Your task to perform on an android device: Open eBay Image 0: 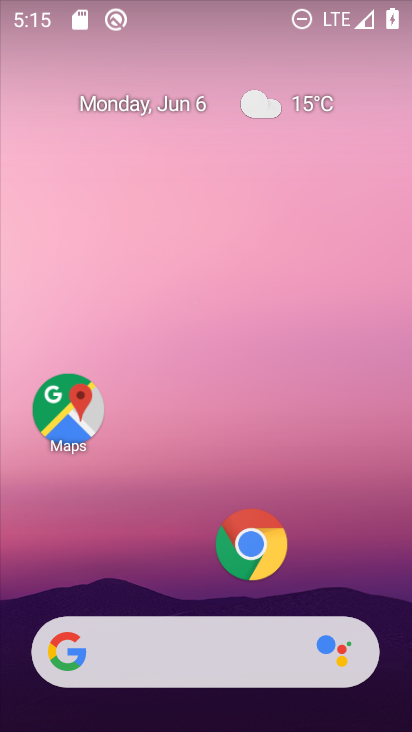
Step 0: click (245, 533)
Your task to perform on an android device: Open eBay Image 1: 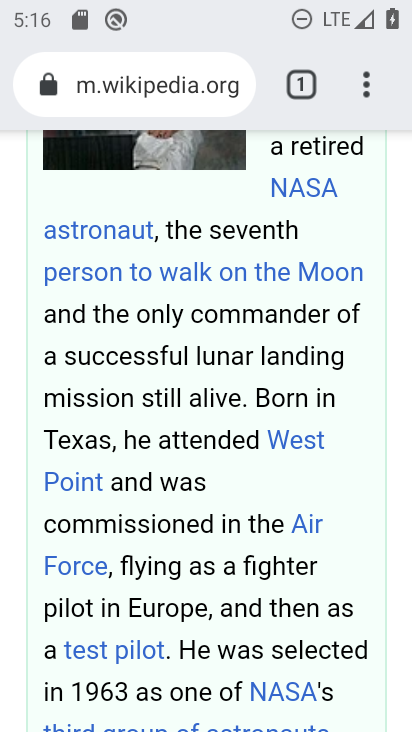
Step 1: click (302, 83)
Your task to perform on an android device: Open eBay Image 2: 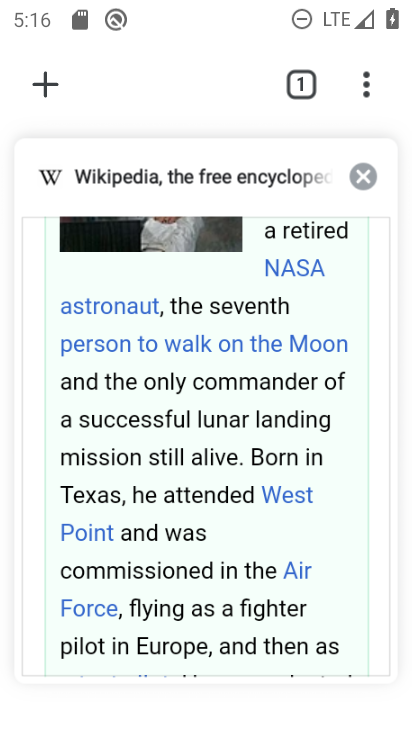
Step 2: click (45, 79)
Your task to perform on an android device: Open eBay Image 3: 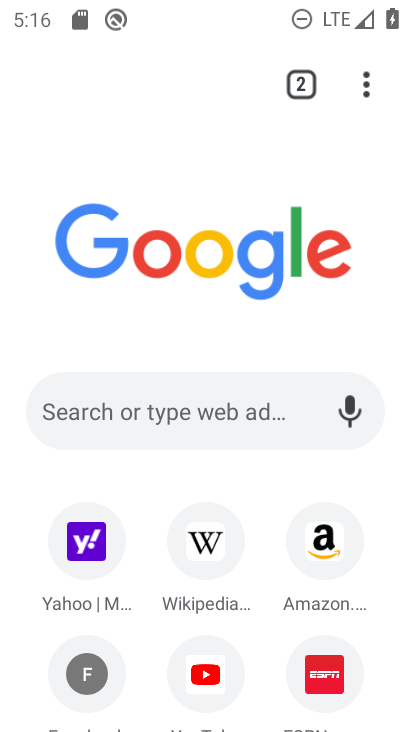
Step 3: click (101, 397)
Your task to perform on an android device: Open eBay Image 4: 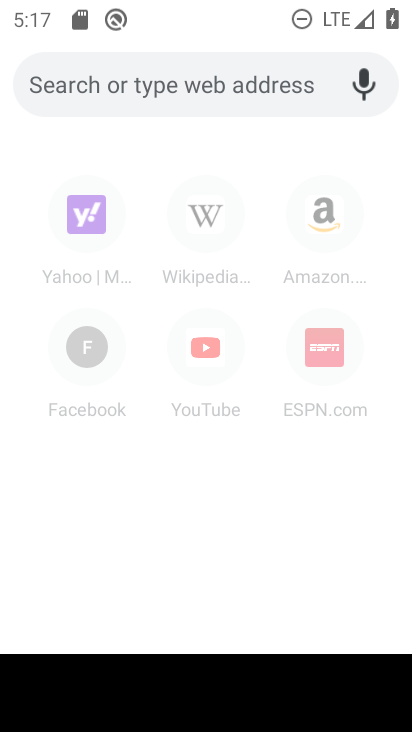
Step 4: type "ebay"
Your task to perform on an android device: Open eBay Image 5: 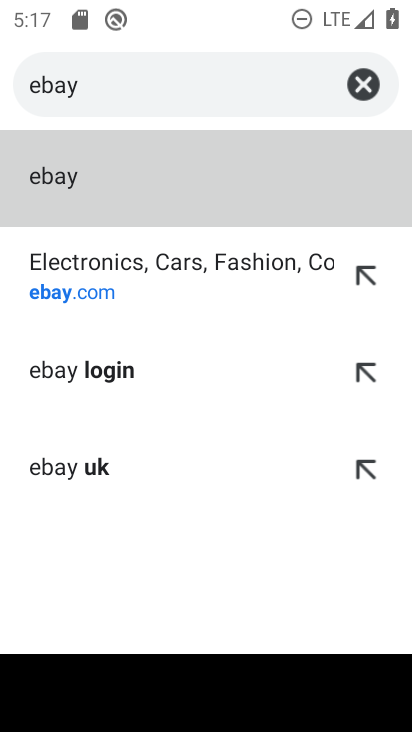
Step 5: click (130, 281)
Your task to perform on an android device: Open eBay Image 6: 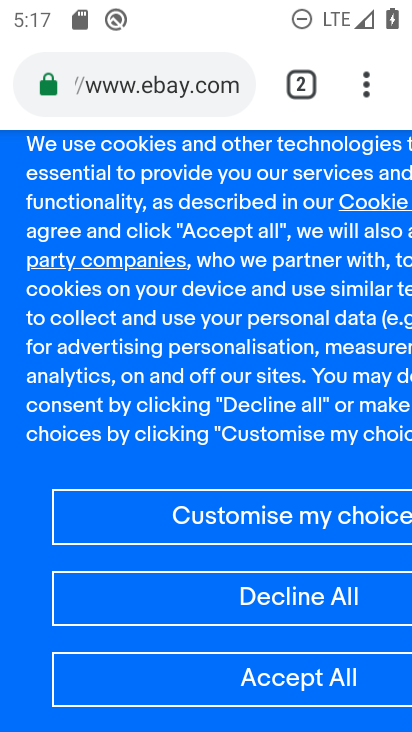
Step 6: click (322, 684)
Your task to perform on an android device: Open eBay Image 7: 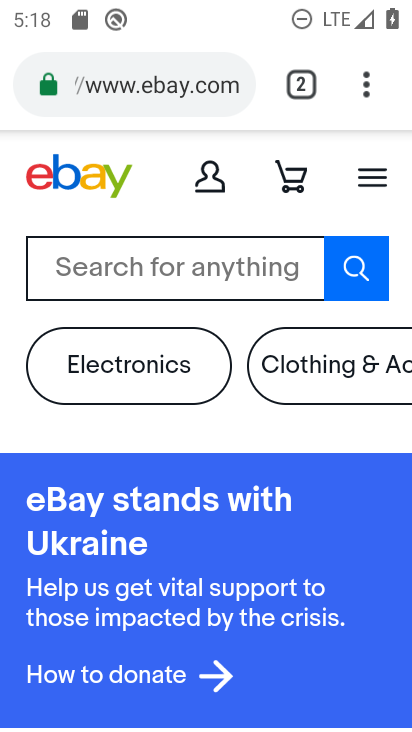
Step 7: task complete